Your task to perform on an android device: Open network settings Image 0: 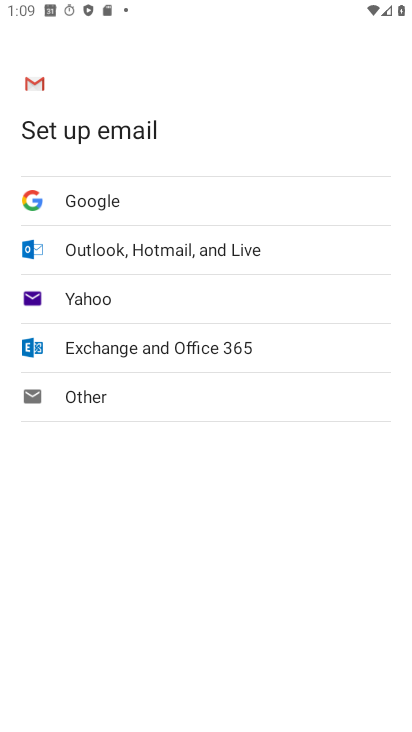
Step 0: press home button
Your task to perform on an android device: Open network settings Image 1: 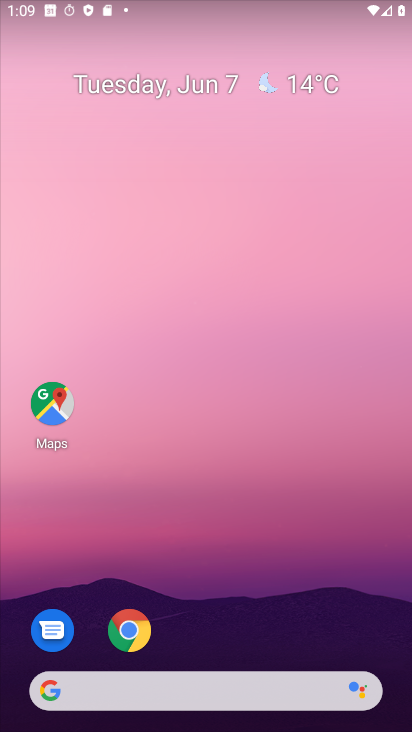
Step 1: drag from (215, 626) to (296, 0)
Your task to perform on an android device: Open network settings Image 2: 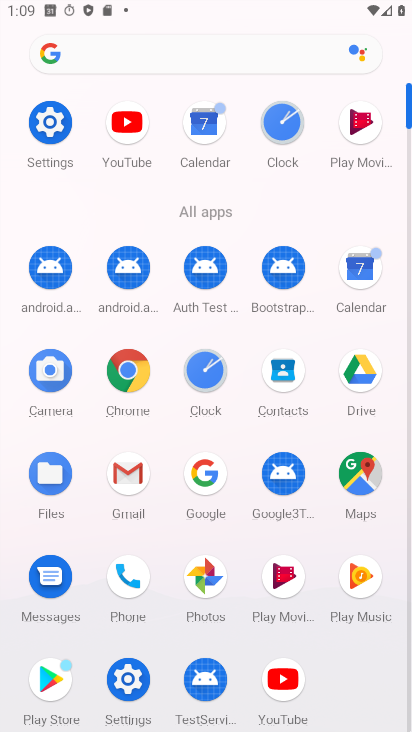
Step 2: click (54, 154)
Your task to perform on an android device: Open network settings Image 3: 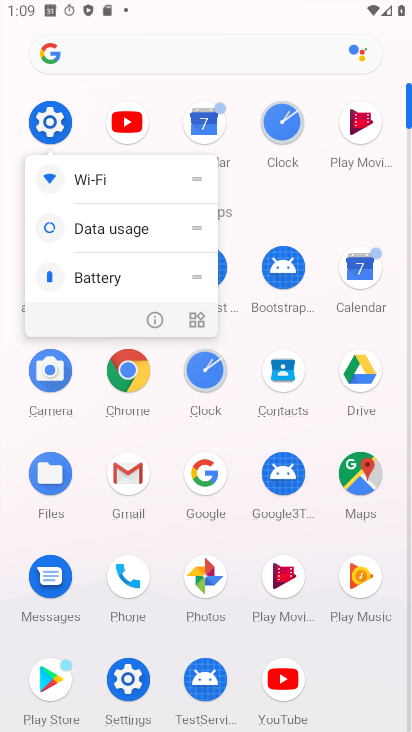
Step 3: click (54, 131)
Your task to perform on an android device: Open network settings Image 4: 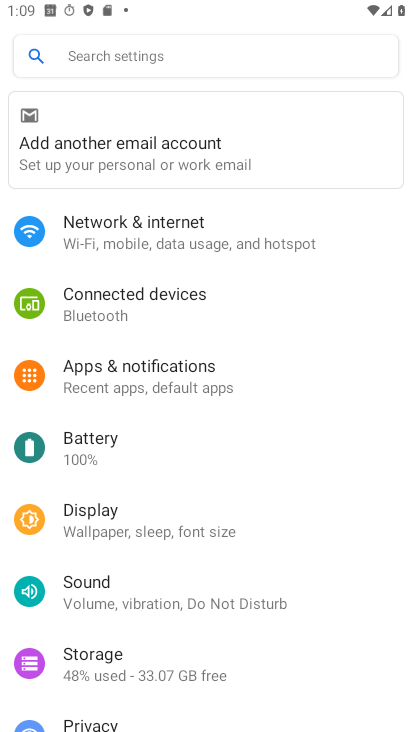
Step 4: click (166, 243)
Your task to perform on an android device: Open network settings Image 5: 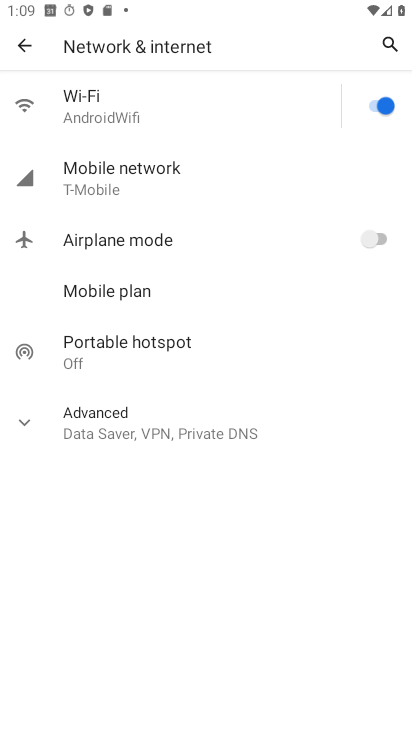
Step 5: task complete